Your task to perform on an android device: turn notification dots on Image 0: 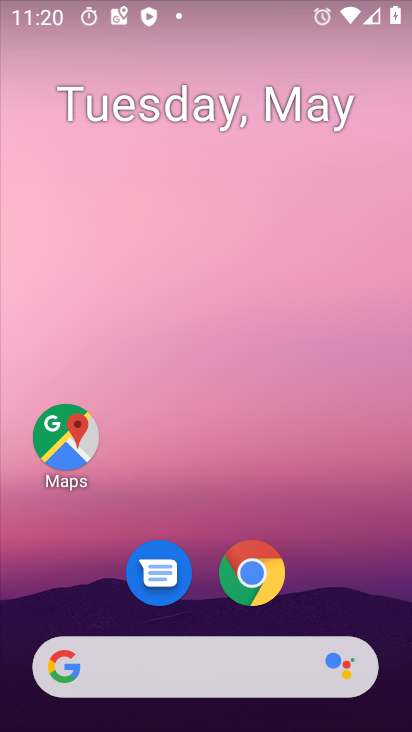
Step 0: drag from (317, 717) to (312, 284)
Your task to perform on an android device: turn notification dots on Image 1: 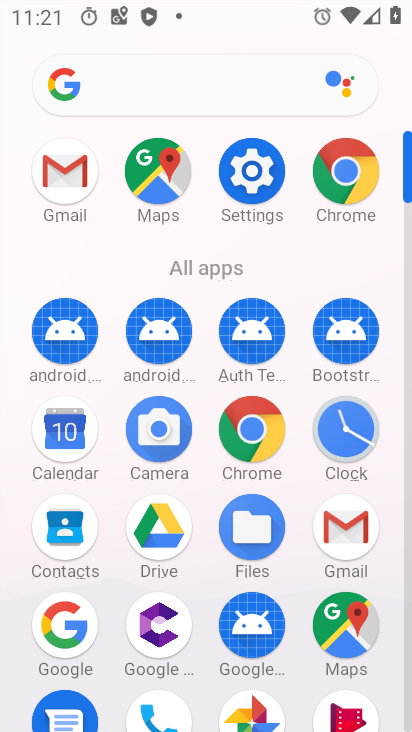
Step 1: click (255, 169)
Your task to perform on an android device: turn notification dots on Image 2: 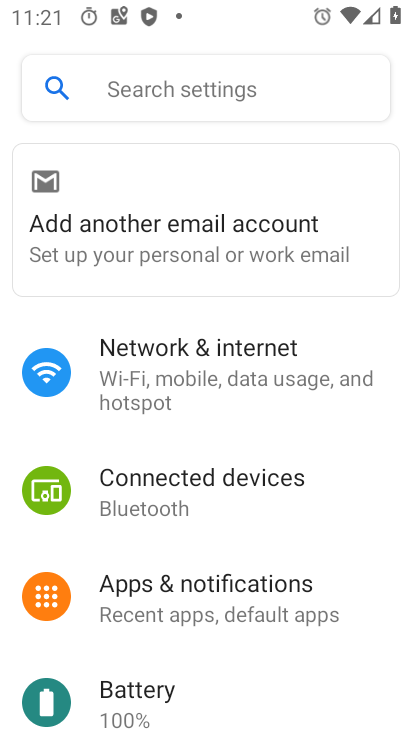
Step 2: click (195, 75)
Your task to perform on an android device: turn notification dots on Image 3: 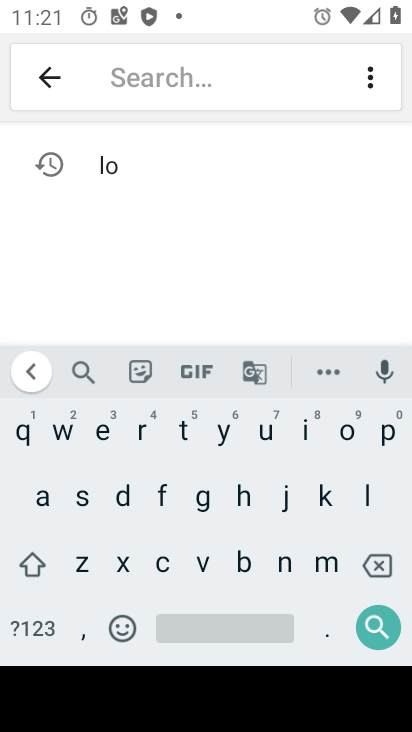
Step 3: click (129, 495)
Your task to perform on an android device: turn notification dots on Image 4: 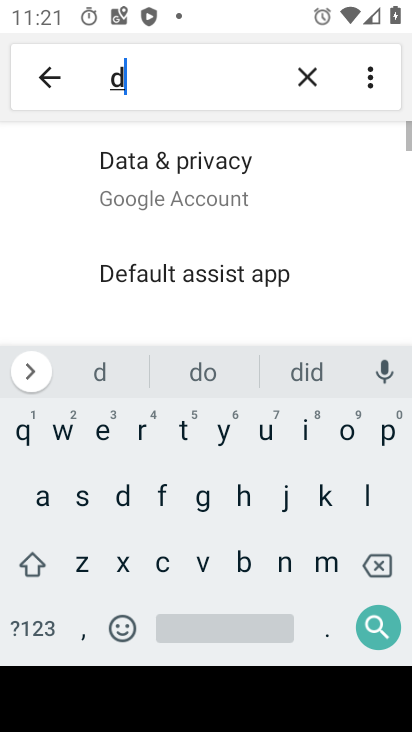
Step 4: click (342, 432)
Your task to perform on an android device: turn notification dots on Image 5: 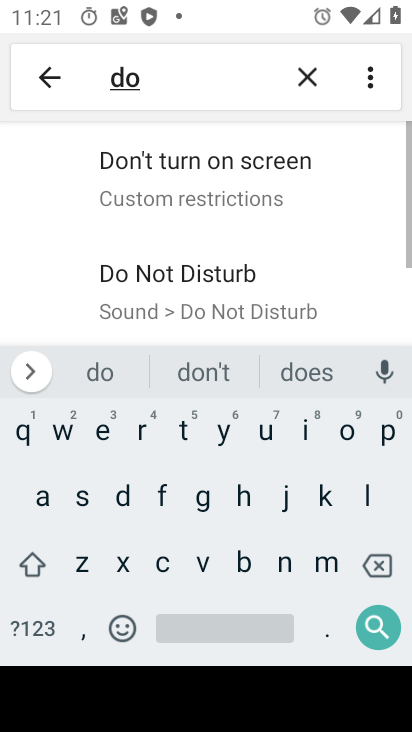
Step 5: click (187, 433)
Your task to perform on an android device: turn notification dots on Image 6: 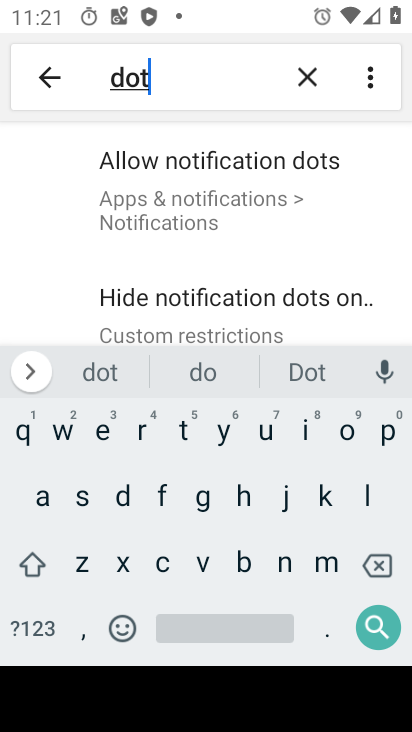
Step 6: click (229, 215)
Your task to perform on an android device: turn notification dots on Image 7: 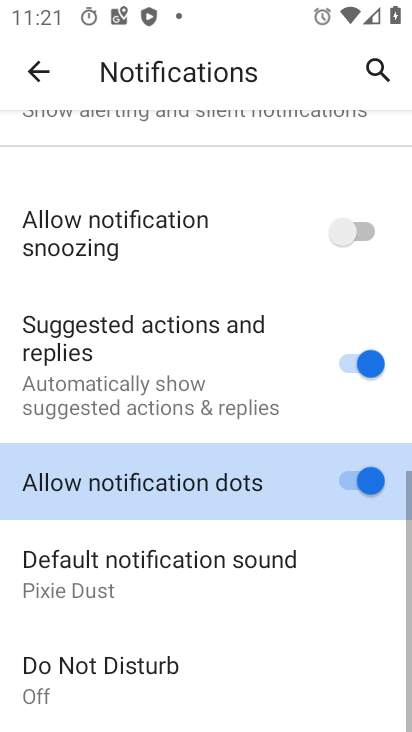
Step 7: click (216, 473)
Your task to perform on an android device: turn notification dots on Image 8: 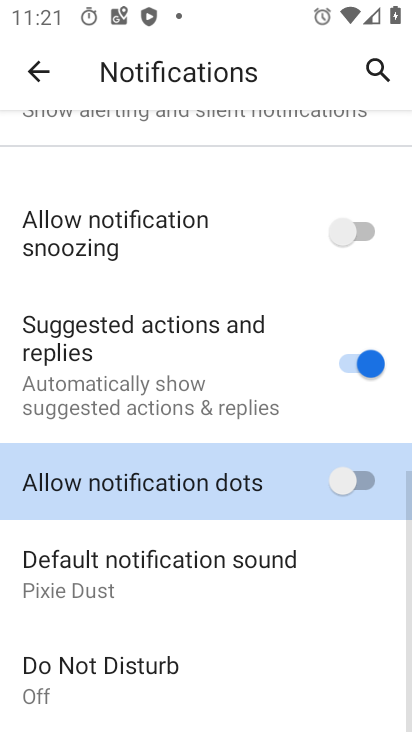
Step 8: click (217, 472)
Your task to perform on an android device: turn notification dots on Image 9: 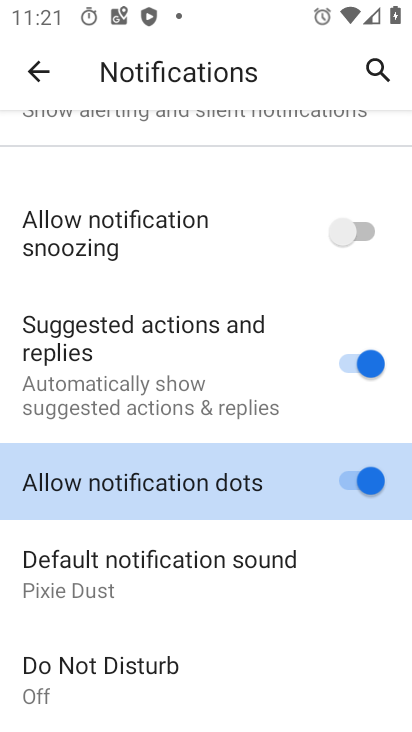
Step 9: task complete